Your task to perform on an android device: Open the map Image 0: 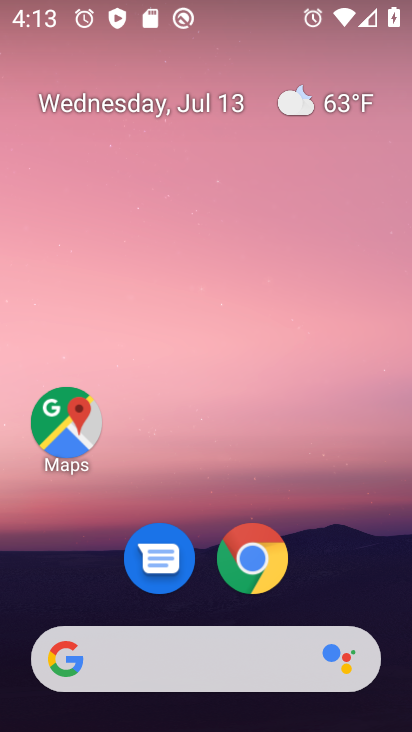
Step 0: click (55, 437)
Your task to perform on an android device: Open the map Image 1: 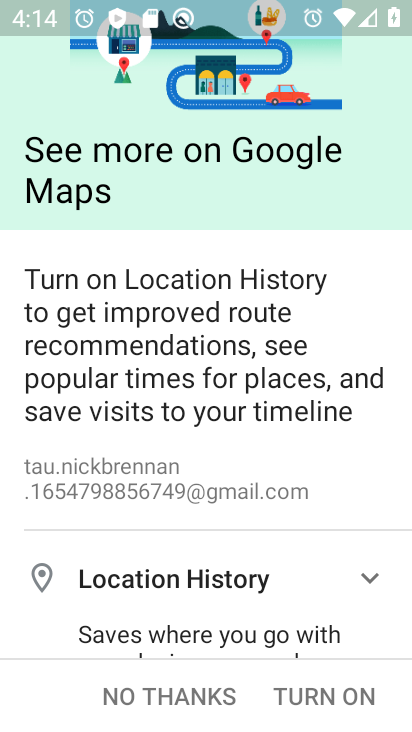
Step 1: click (315, 698)
Your task to perform on an android device: Open the map Image 2: 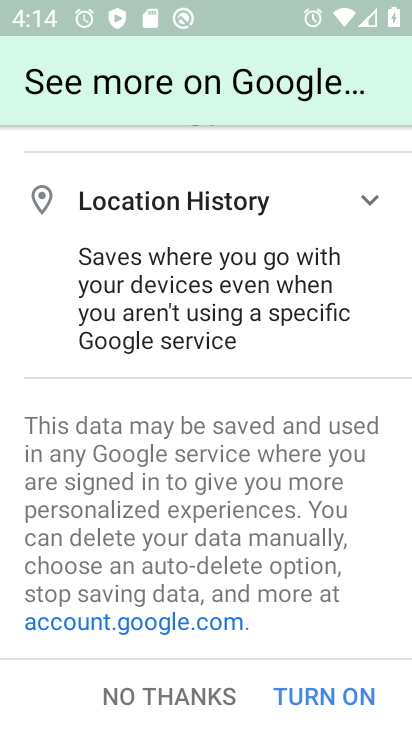
Step 2: click (316, 697)
Your task to perform on an android device: Open the map Image 3: 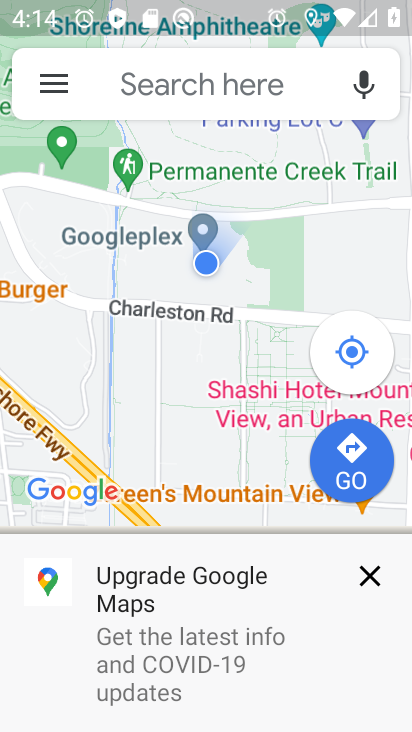
Step 3: click (367, 581)
Your task to perform on an android device: Open the map Image 4: 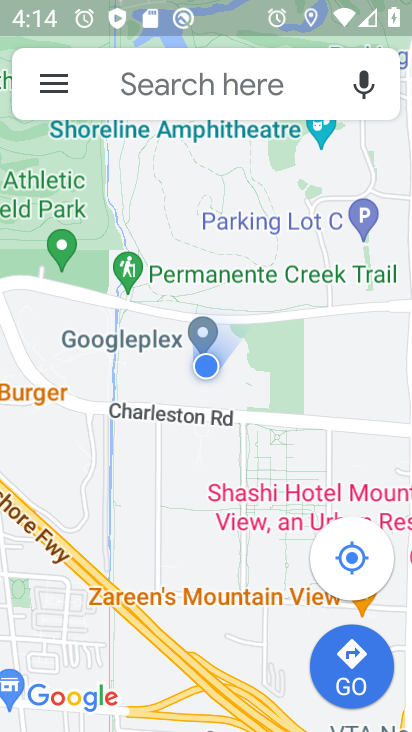
Step 4: task complete